Your task to perform on an android device: Open Chrome and go to settings Image 0: 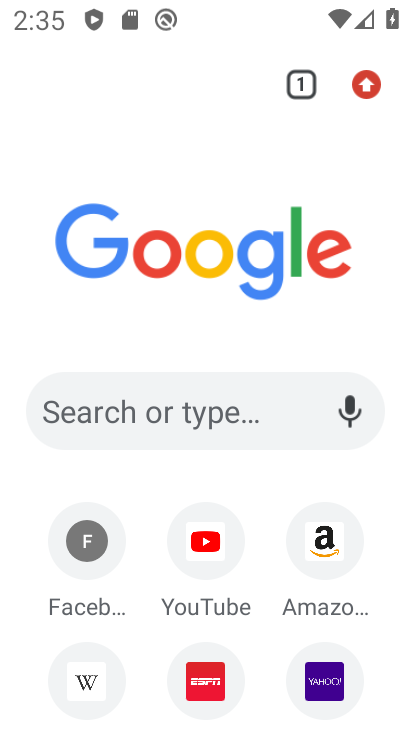
Step 0: click (369, 81)
Your task to perform on an android device: Open Chrome and go to settings Image 1: 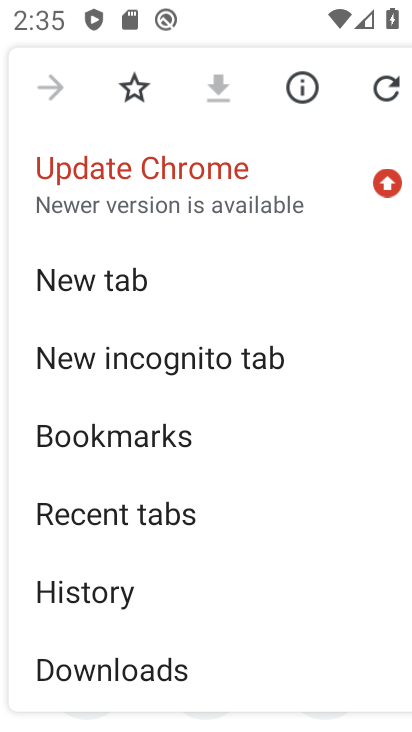
Step 1: drag from (117, 539) to (201, 130)
Your task to perform on an android device: Open Chrome and go to settings Image 2: 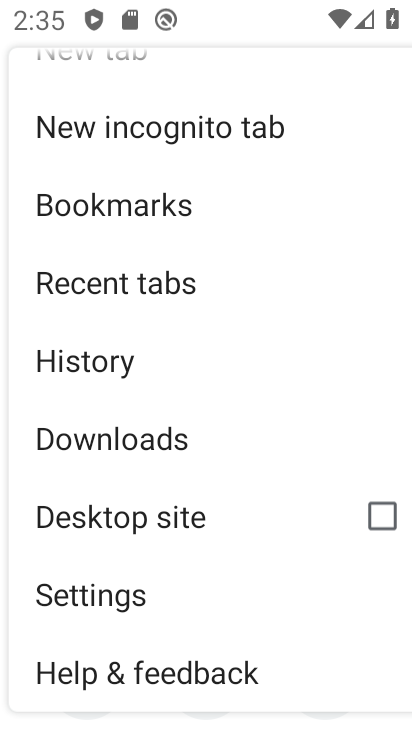
Step 2: click (99, 607)
Your task to perform on an android device: Open Chrome and go to settings Image 3: 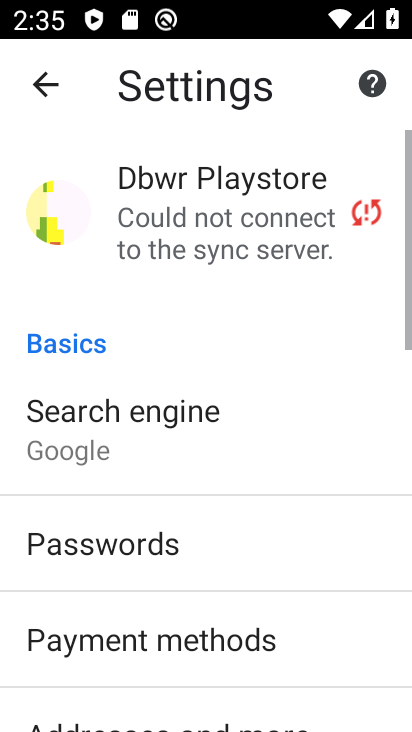
Step 3: task complete